Your task to perform on an android device: Open Yahoo.com Image 0: 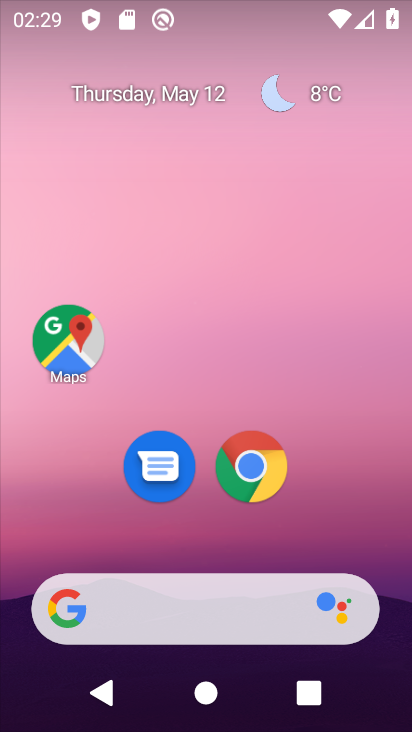
Step 0: click (236, 466)
Your task to perform on an android device: Open Yahoo.com Image 1: 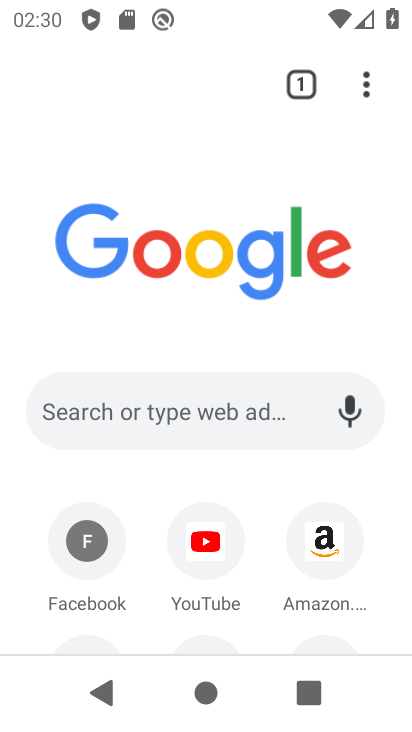
Step 1: click (202, 394)
Your task to perform on an android device: Open Yahoo.com Image 2: 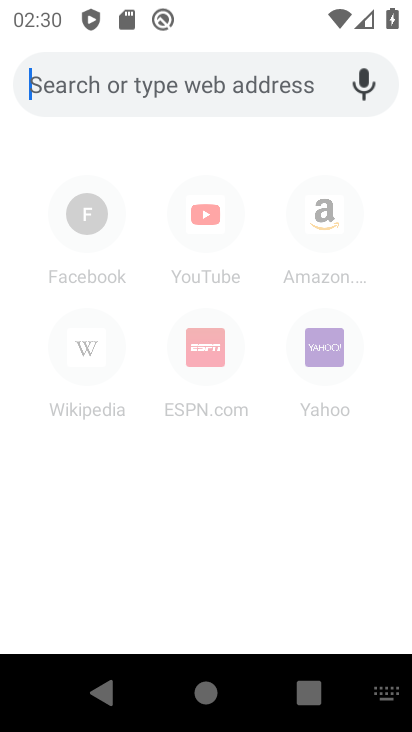
Step 2: click (344, 458)
Your task to perform on an android device: Open Yahoo.com Image 3: 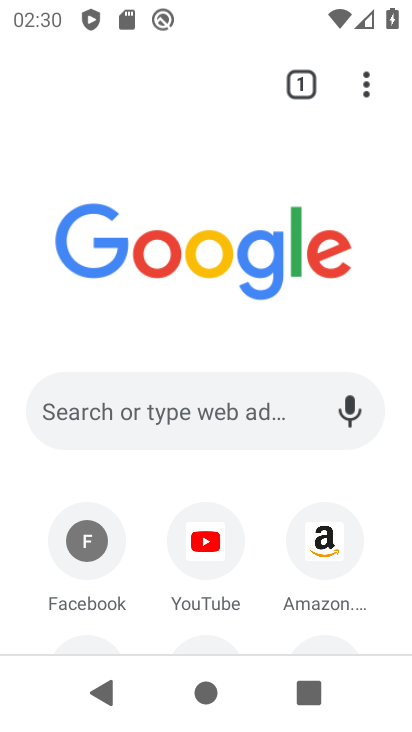
Step 3: drag from (262, 500) to (286, 191)
Your task to perform on an android device: Open Yahoo.com Image 4: 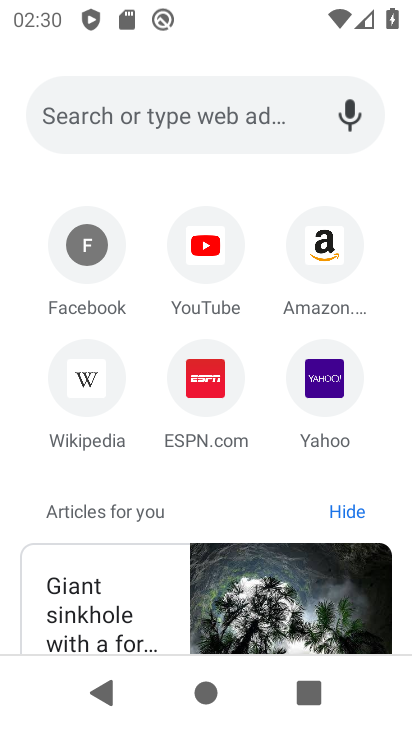
Step 4: click (333, 352)
Your task to perform on an android device: Open Yahoo.com Image 5: 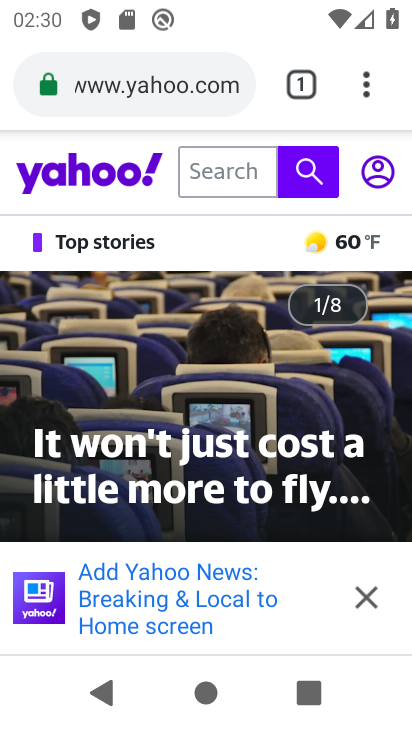
Step 5: task complete